Your task to perform on an android device: Open Youtube and go to "Your channel" Image 0: 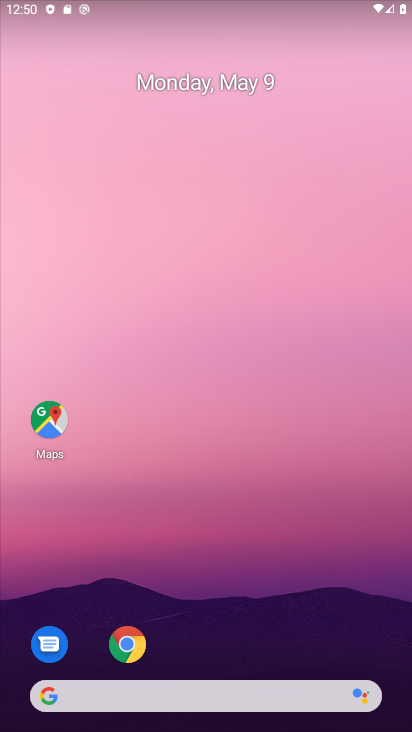
Step 0: drag from (290, 548) to (262, 276)
Your task to perform on an android device: Open Youtube and go to "Your channel" Image 1: 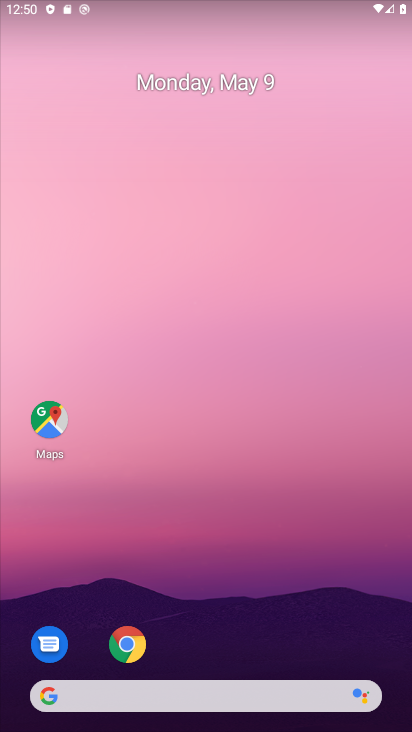
Step 1: drag from (244, 602) to (248, 204)
Your task to perform on an android device: Open Youtube and go to "Your channel" Image 2: 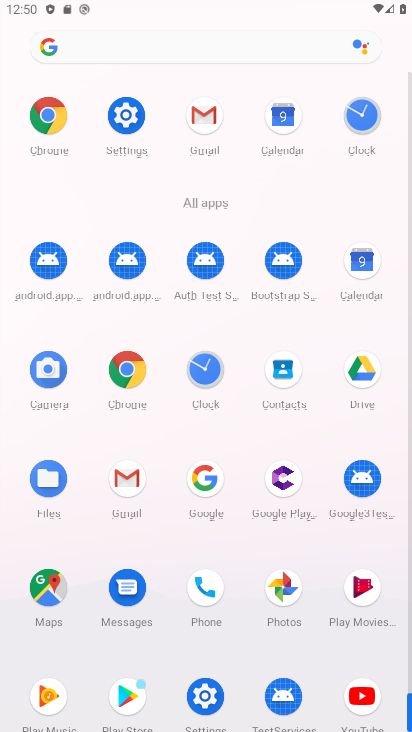
Step 2: click (353, 703)
Your task to perform on an android device: Open Youtube and go to "Your channel" Image 3: 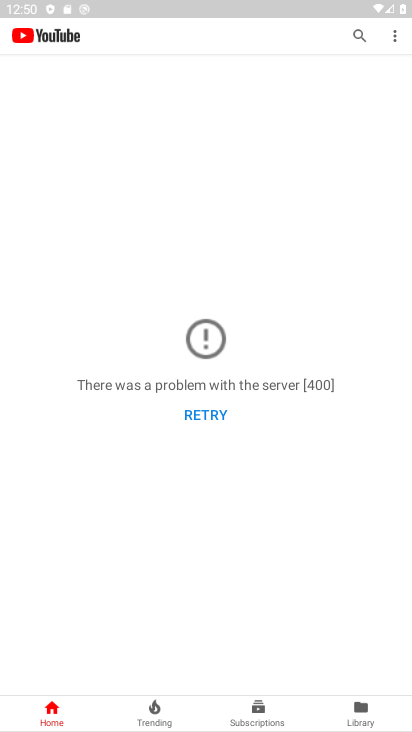
Step 3: click (266, 725)
Your task to perform on an android device: Open Youtube and go to "Your channel" Image 4: 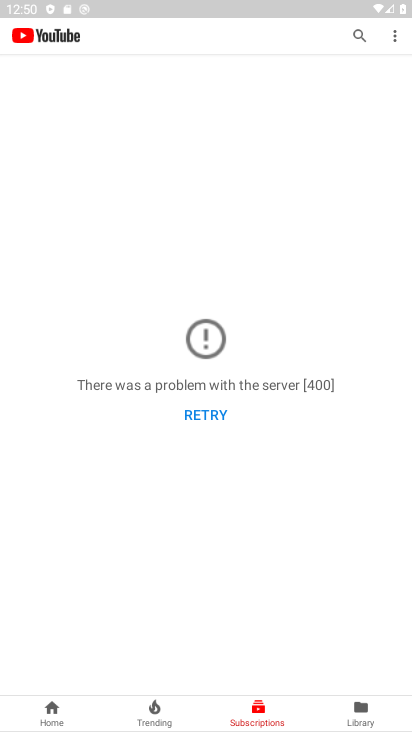
Step 4: click (251, 711)
Your task to perform on an android device: Open Youtube and go to "Your channel" Image 5: 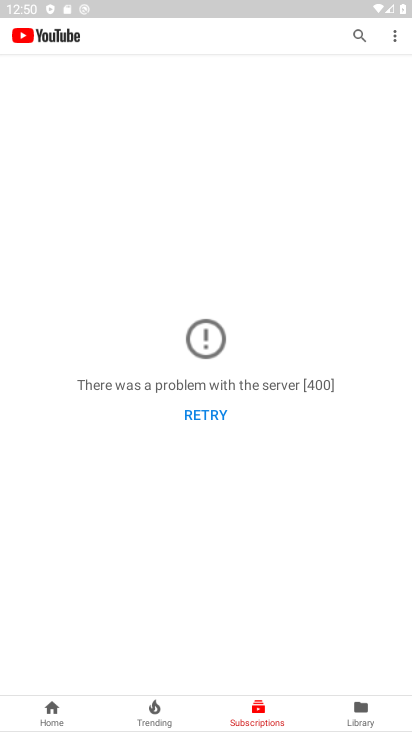
Step 5: click (161, 725)
Your task to perform on an android device: Open Youtube and go to "Your channel" Image 6: 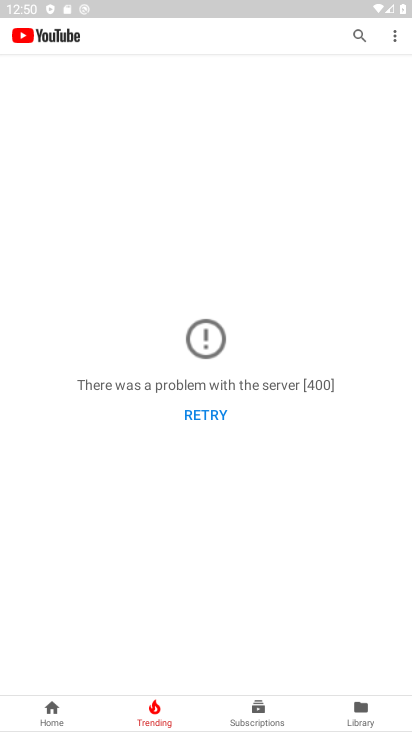
Step 6: click (348, 716)
Your task to perform on an android device: Open Youtube and go to "Your channel" Image 7: 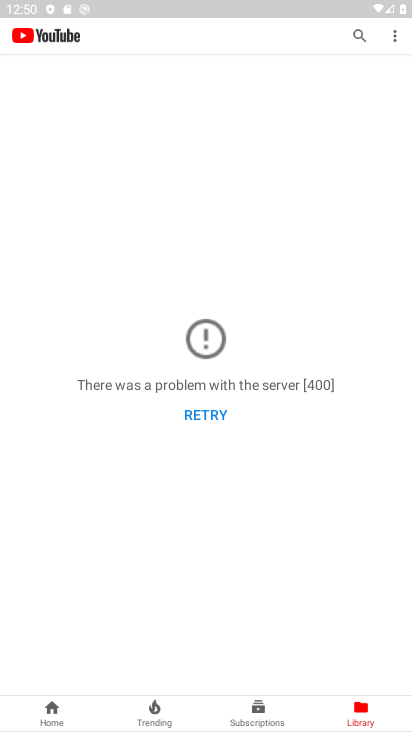
Step 7: click (55, 718)
Your task to perform on an android device: Open Youtube and go to "Your channel" Image 8: 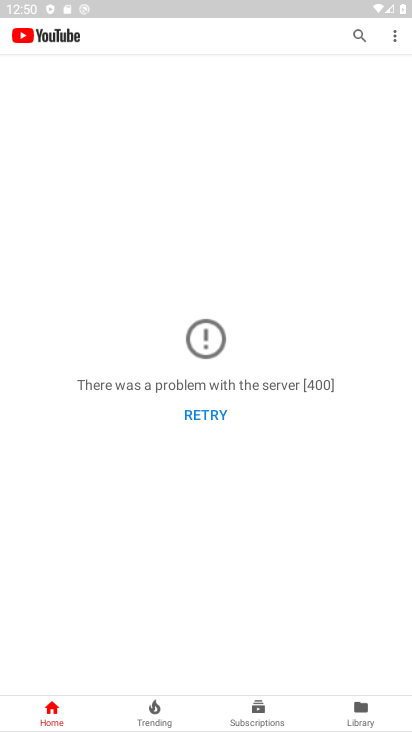
Step 8: task complete